Your task to perform on an android device: What's the weather today? Image 0: 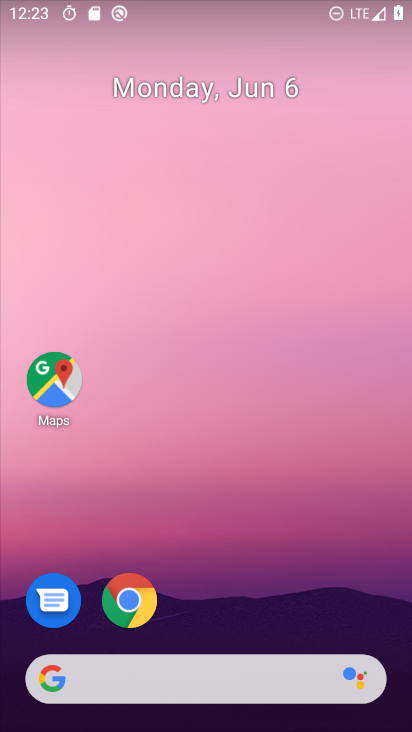
Step 0: drag from (211, 629) to (147, 167)
Your task to perform on an android device: What's the weather today? Image 1: 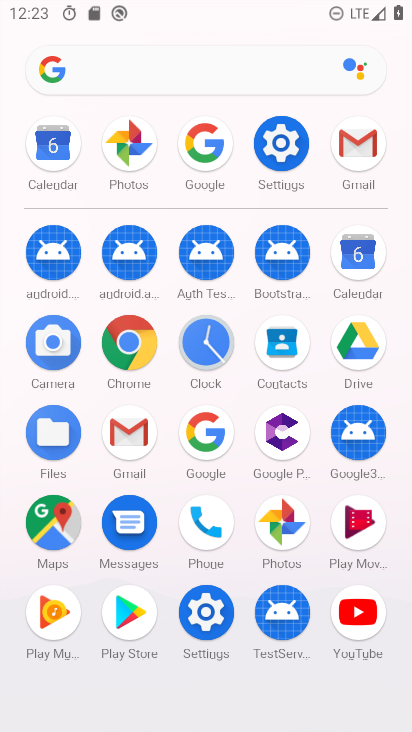
Step 1: click (200, 449)
Your task to perform on an android device: What's the weather today? Image 2: 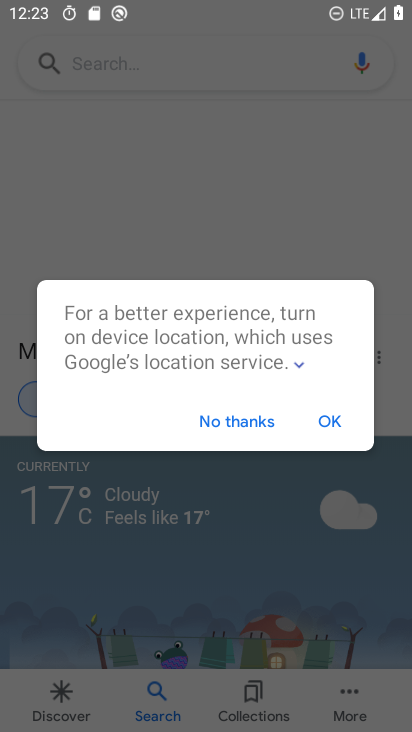
Step 2: click (331, 417)
Your task to perform on an android device: What's the weather today? Image 3: 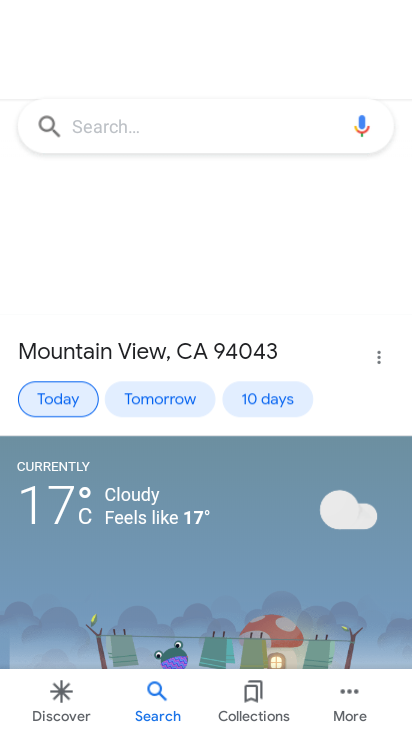
Step 3: click (155, 137)
Your task to perform on an android device: What's the weather today? Image 4: 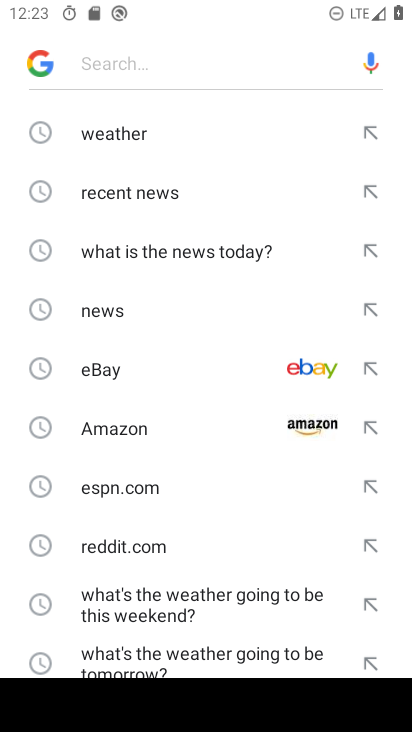
Step 4: click (112, 126)
Your task to perform on an android device: What's the weather today? Image 5: 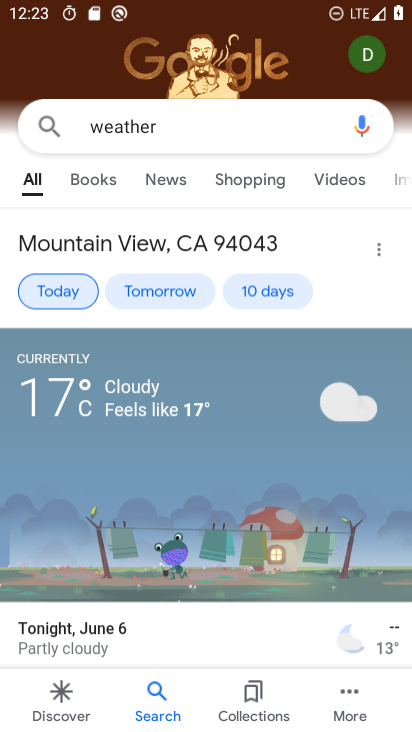
Step 5: task complete